Your task to perform on an android device: turn off priority inbox in the gmail app Image 0: 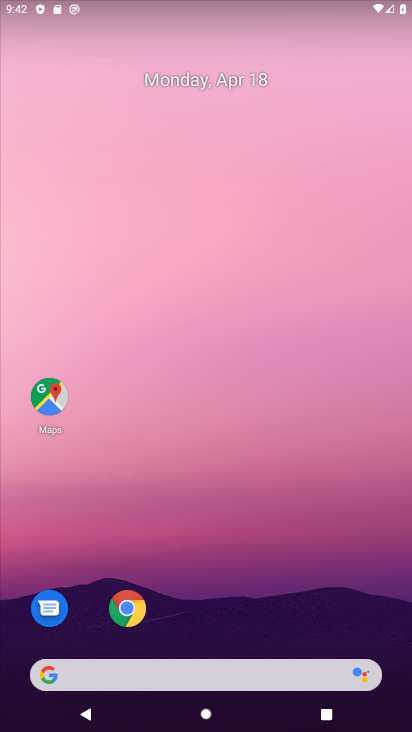
Step 0: drag from (258, 439) to (238, 197)
Your task to perform on an android device: turn off priority inbox in the gmail app Image 1: 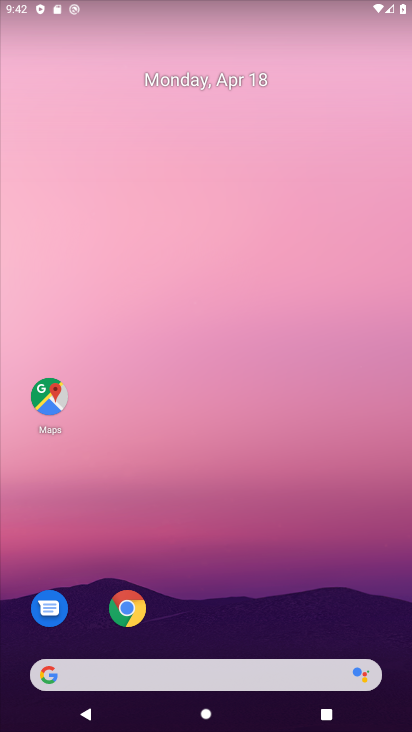
Step 1: drag from (249, 558) to (262, 198)
Your task to perform on an android device: turn off priority inbox in the gmail app Image 2: 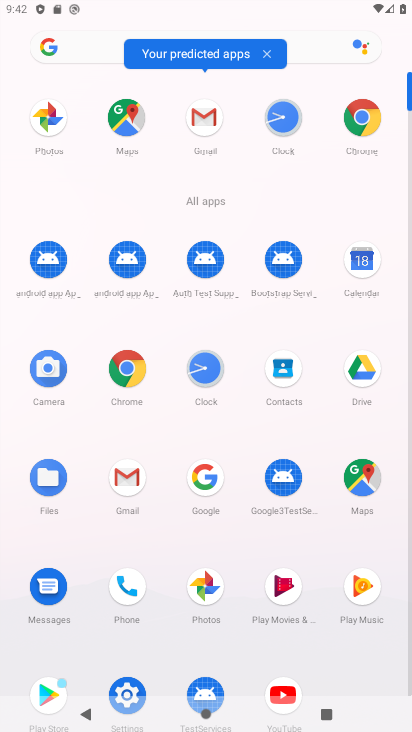
Step 2: click (206, 134)
Your task to perform on an android device: turn off priority inbox in the gmail app Image 3: 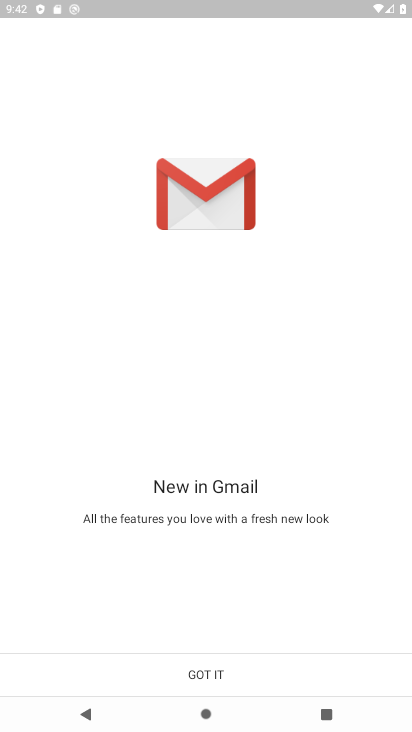
Step 3: click (213, 672)
Your task to perform on an android device: turn off priority inbox in the gmail app Image 4: 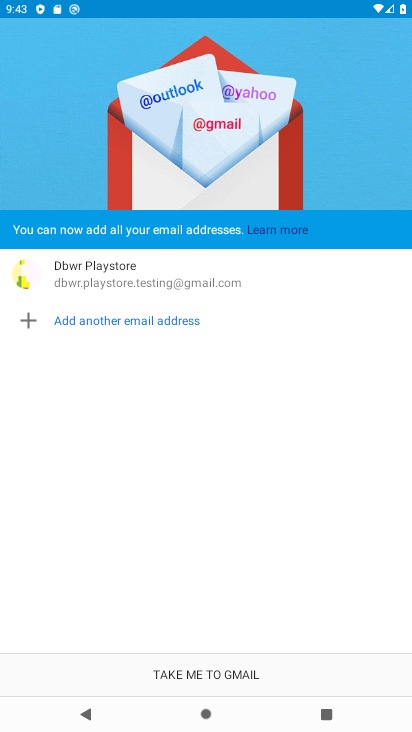
Step 4: click (188, 677)
Your task to perform on an android device: turn off priority inbox in the gmail app Image 5: 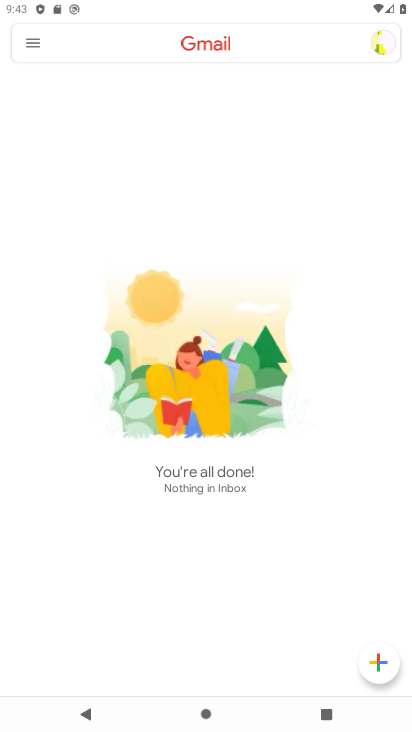
Step 5: click (29, 42)
Your task to perform on an android device: turn off priority inbox in the gmail app Image 6: 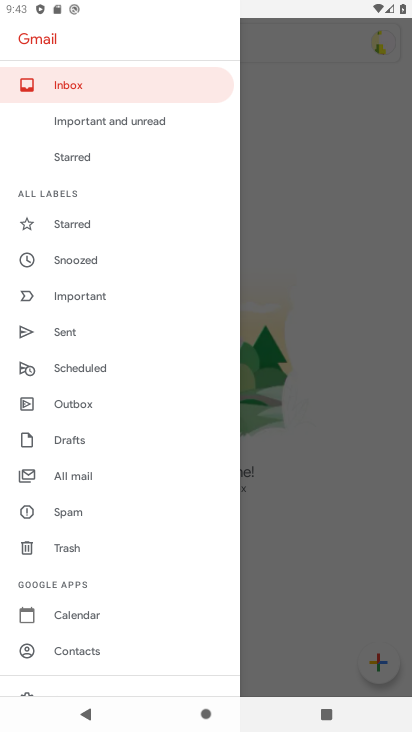
Step 6: drag from (123, 637) to (148, 410)
Your task to perform on an android device: turn off priority inbox in the gmail app Image 7: 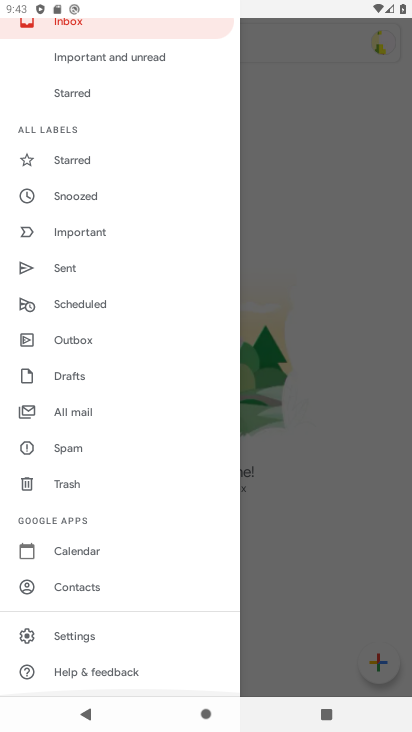
Step 7: click (84, 631)
Your task to perform on an android device: turn off priority inbox in the gmail app Image 8: 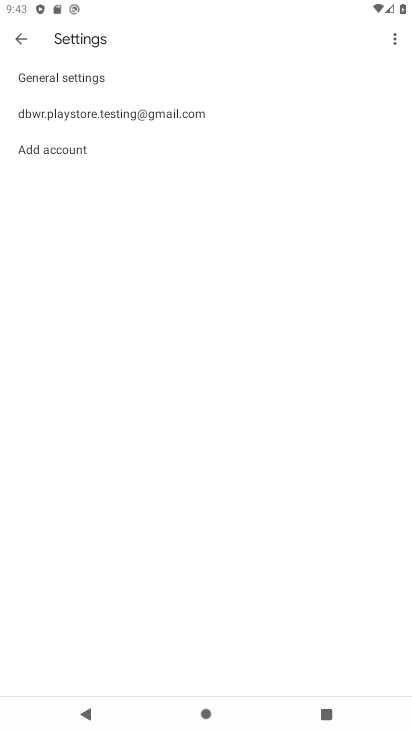
Step 8: click (91, 108)
Your task to perform on an android device: turn off priority inbox in the gmail app Image 9: 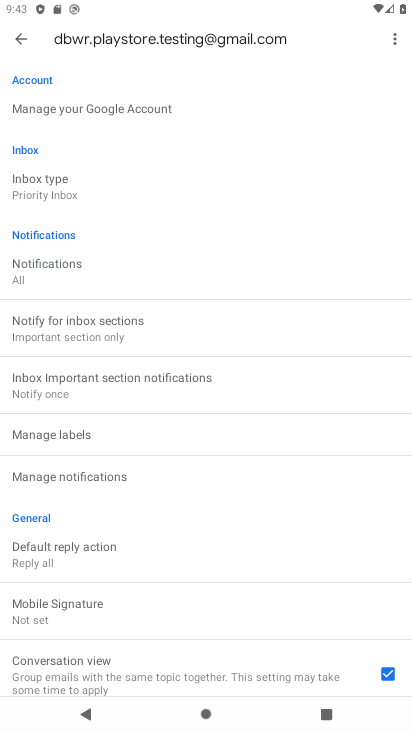
Step 9: click (50, 185)
Your task to perform on an android device: turn off priority inbox in the gmail app Image 10: 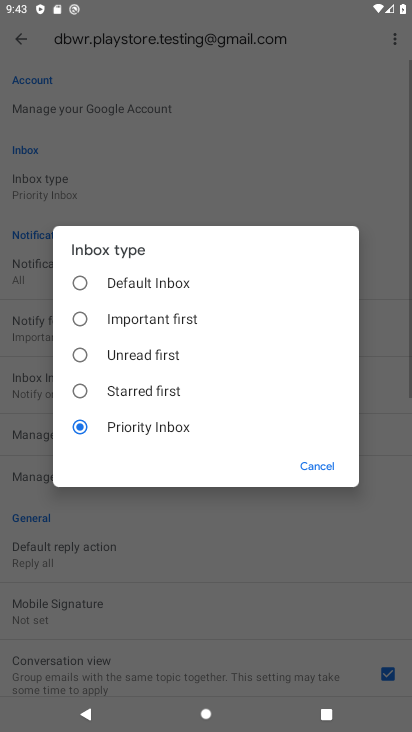
Step 10: task complete